Your task to perform on an android device: Search for Mexican restaurants on Maps Image 0: 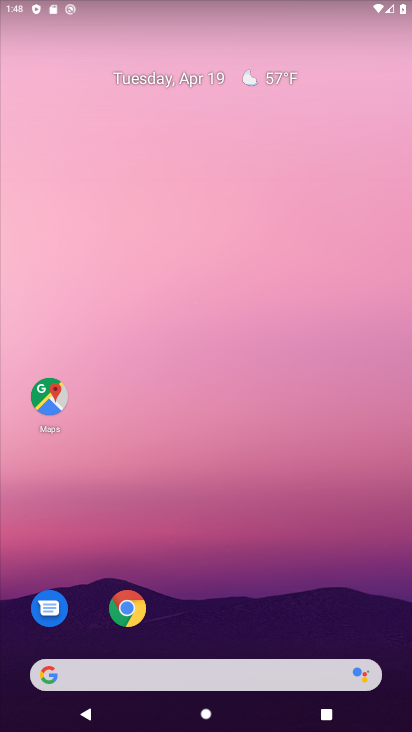
Step 0: drag from (200, 661) to (186, 228)
Your task to perform on an android device: Search for Mexican restaurants on Maps Image 1: 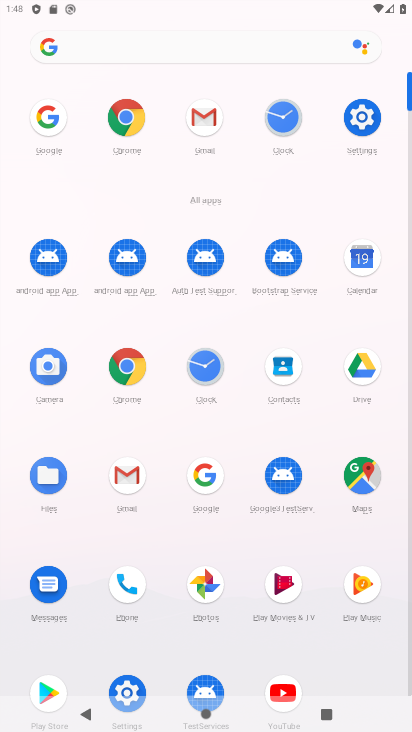
Step 1: click (362, 479)
Your task to perform on an android device: Search for Mexican restaurants on Maps Image 2: 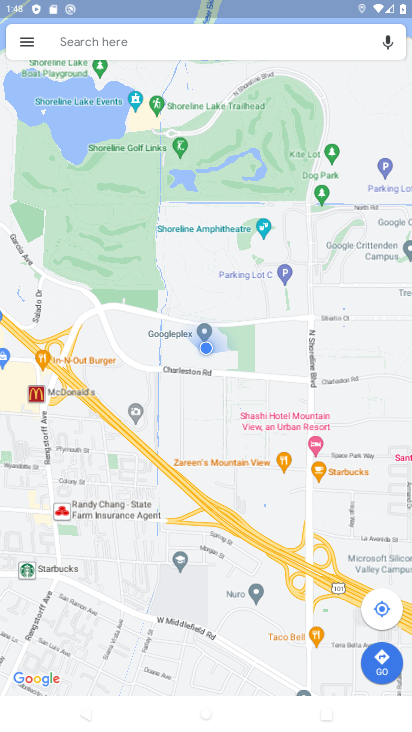
Step 2: click (184, 37)
Your task to perform on an android device: Search for Mexican restaurants on Maps Image 3: 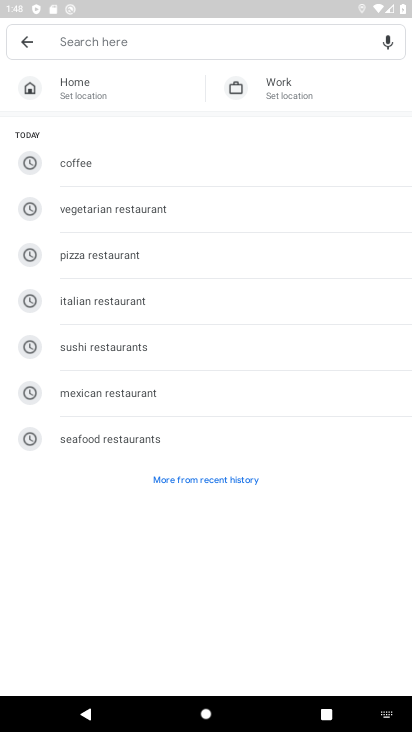
Step 3: click (116, 392)
Your task to perform on an android device: Search for Mexican restaurants on Maps Image 4: 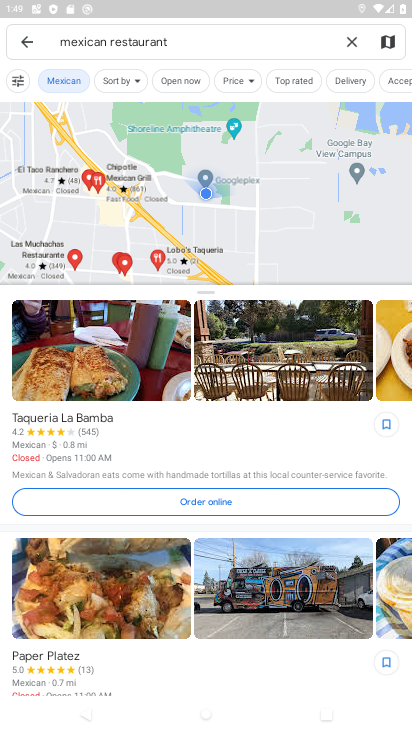
Step 4: task complete